Your task to perform on an android device: turn on data saver in the chrome app Image 0: 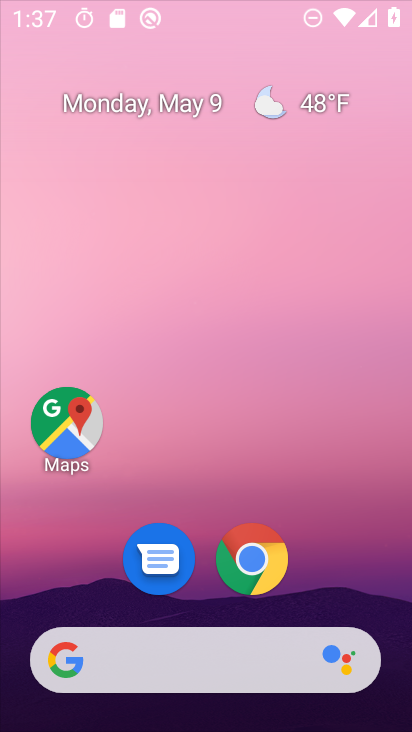
Step 0: drag from (318, 202) to (323, 156)
Your task to perform on an android device: turn on data saver in the chrome app Image 1: 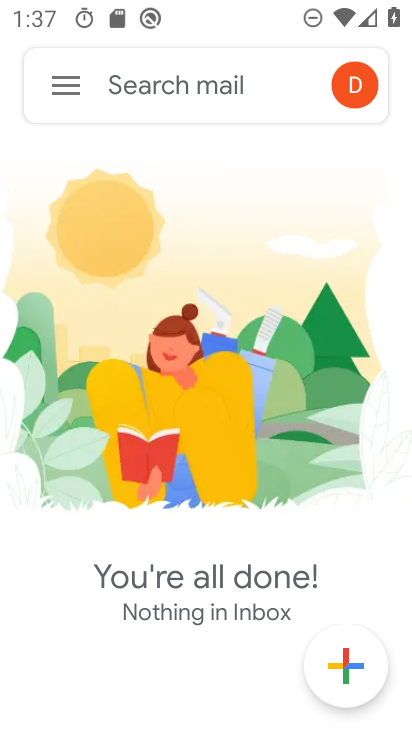
Step 1: press home button
Your task to perform on an android device: turn on data saver in the chrome app Image 2: 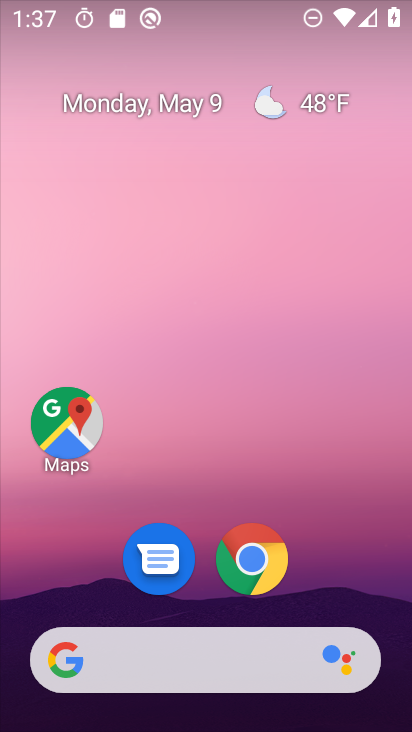
Step 2: drag from (208, 552) to (224, 220)
Your task to perform on an android device: turn on data saver in the chrome app Image 3: 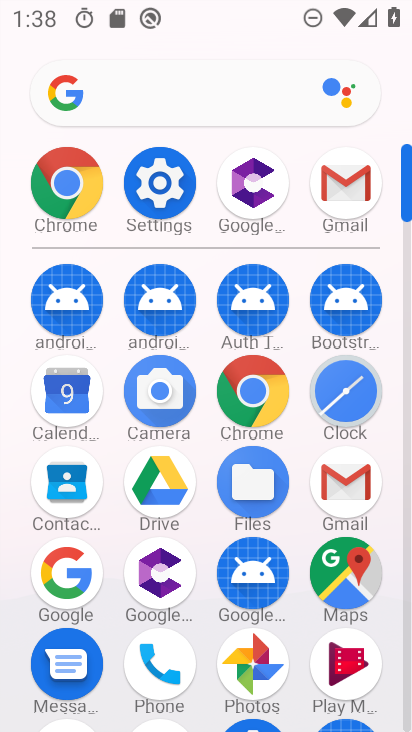
Step 3: click (248, 388)
Your task to perform on an android device: turn on data saver in the chrome app Image 4: 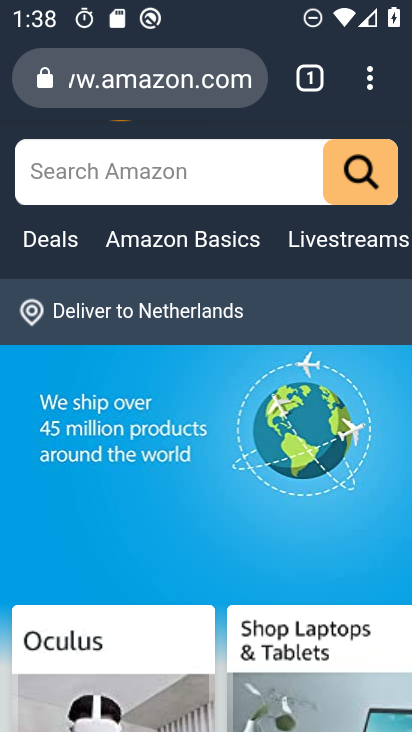
Step 4: drag from (368, 86) to (164, 619)
Your task to perform on an android device: turn on data saver in the chrome app Image 5: 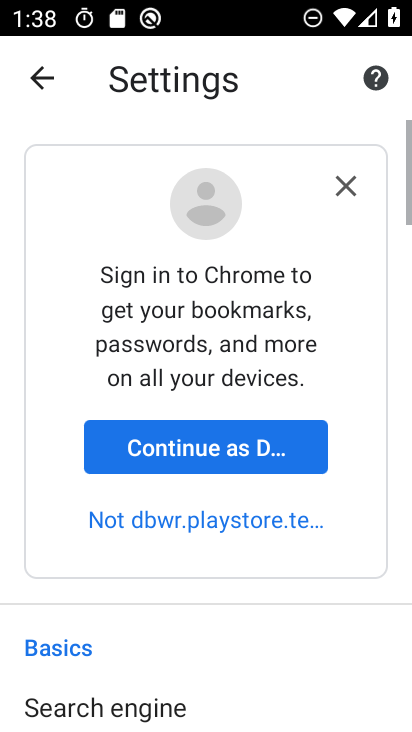
Step 5: drag from (181, 592) to (272, 27)
Your task to perform on an android device: turn on data saver in the chrome app Image 6: 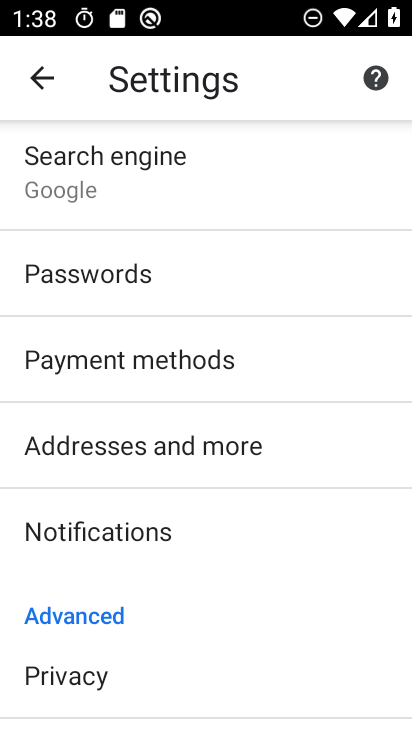
Step 6: drag from (239, 562) to (260, 4)
Your task to perform on an android device: turn on data saver in the chrome app Image 7: 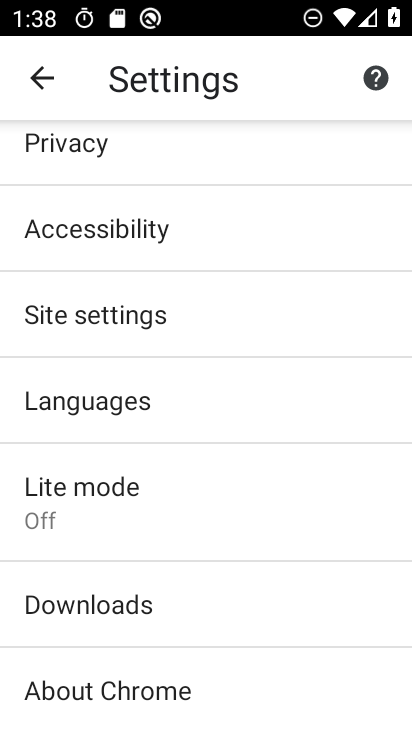
Step 7: click (131, 514)
Your task to perform on an android device: turn on data saver in the chrome app Image 8: 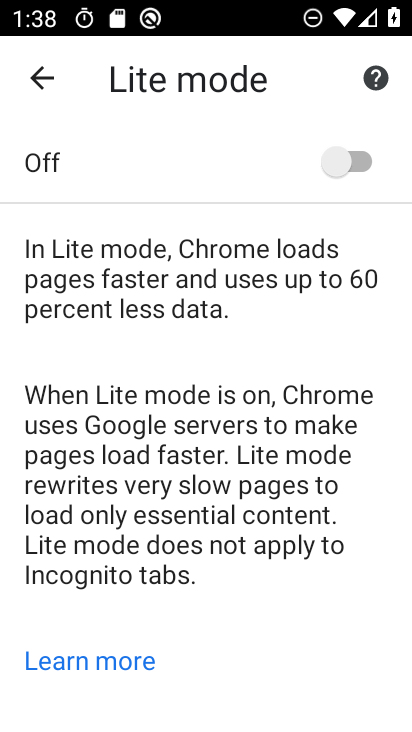
Step 8: click (339, 164)
Your task to perform on an android device: turn on data saver in the chrome app Image 9: 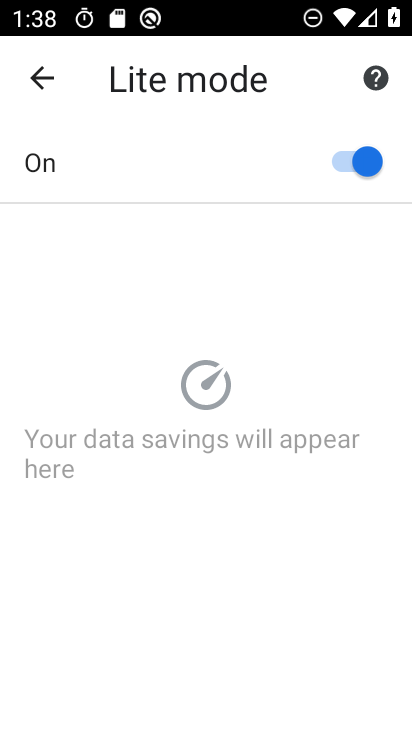
Step 9: task complete